Your task to perform on an android device: Open CNN.com Image 0: 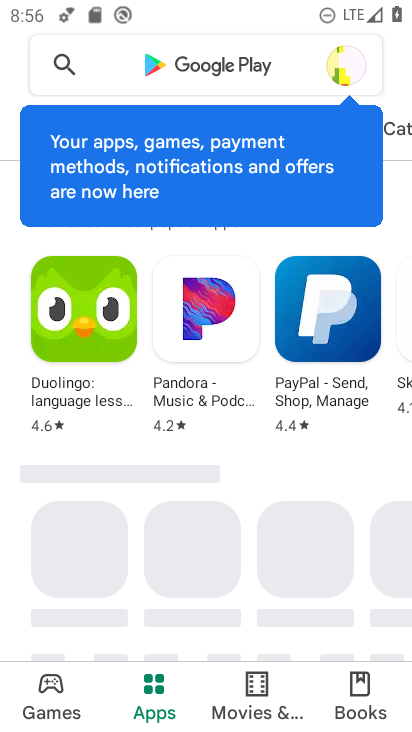
Step 0: press home button
Your task to perform on an android device: Open CNN.com Image 1: 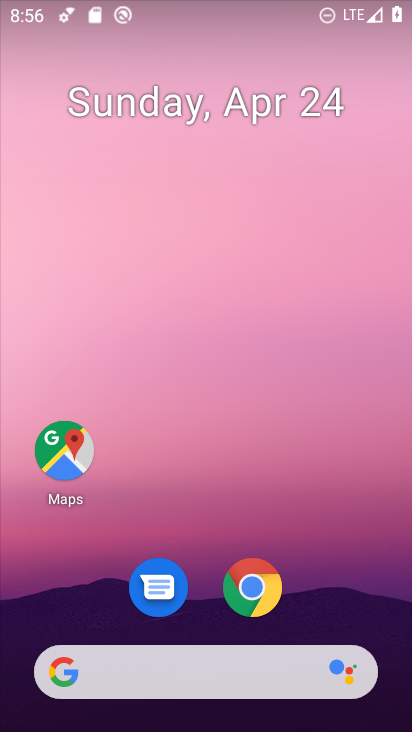
Step 1: drag from (315, 512) to (324, 159)
Your task to perform on an android device: Open CNN.com Image 2: 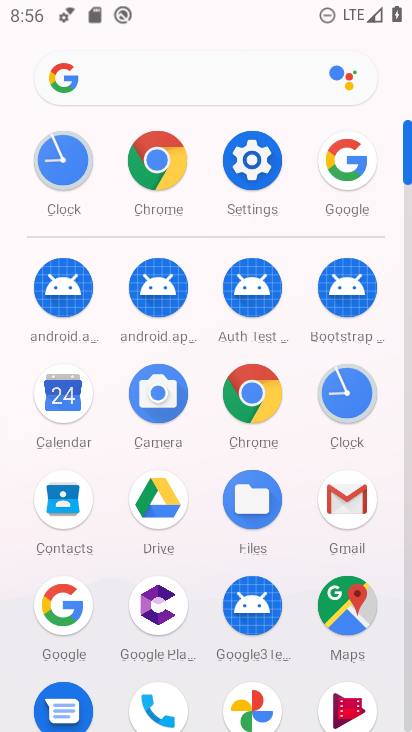
Step 2: click (258, 402)
Your task to perform on an android device: Open CNN.com Image 3: 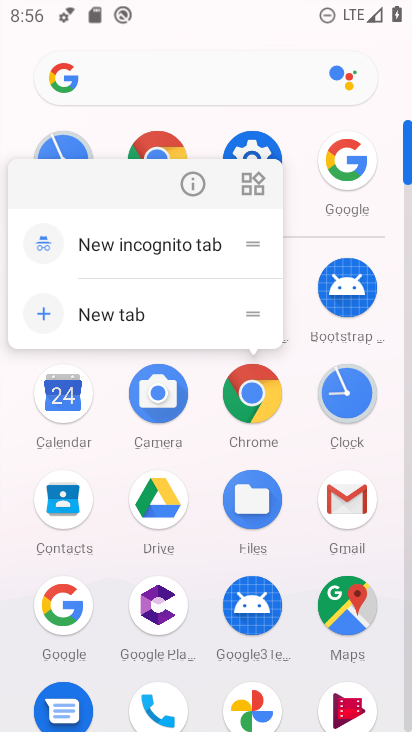
Step 3: click (250, 400)
Your task to perform on an android device: Open CNN.com Image 4: 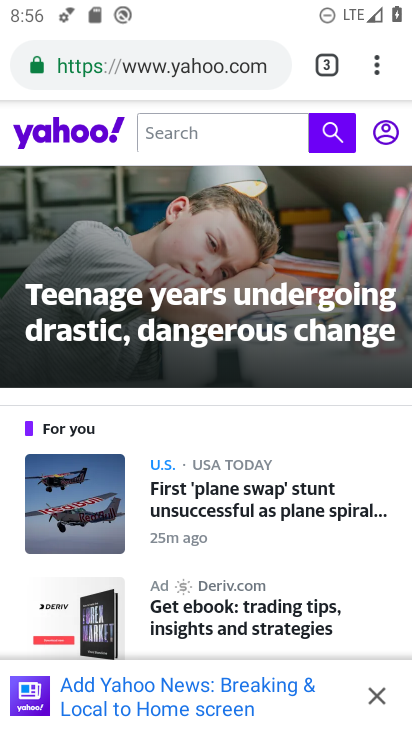
Step 4: click (188, 67)
Your task to perform on an android device: Open CNN.com Image 5: 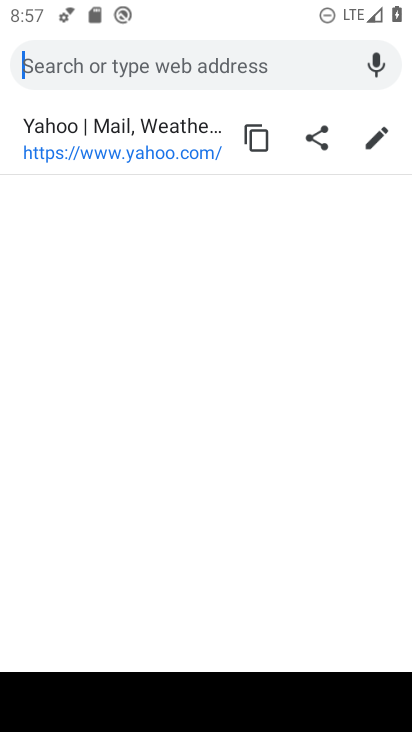
Step 5: type "cnn.com"
Your task to perform on an android device: Open CNN.com Image 6: 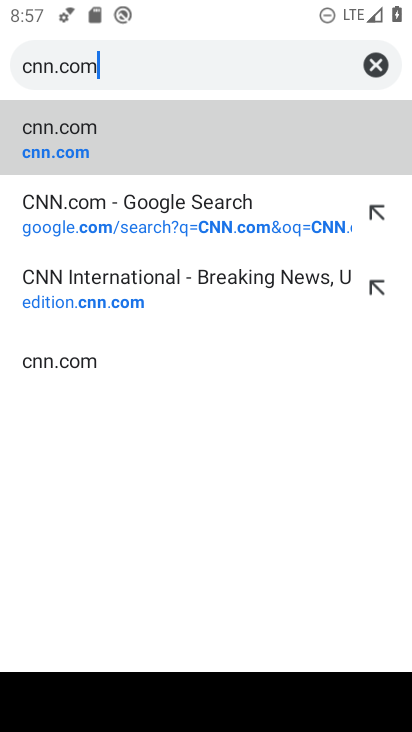
Step 6: click (80, 133)
Your task to perform on an android device: Open CNN.com Image 7: 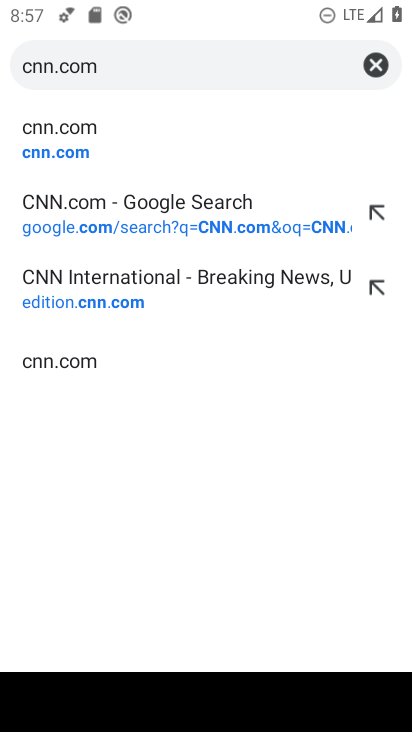
Step 7: click (65, 155)
Your task to perform on an android device: Open CNN.com Image 8: 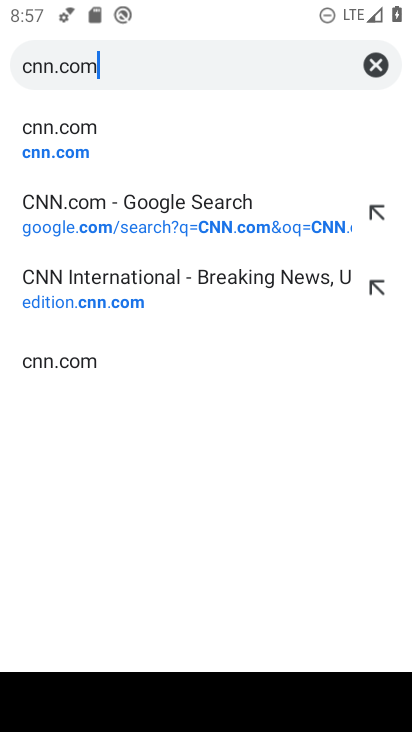
Step 8: click (65, 155)
Your task to perform on an android device: Open CNN.com Image 9: 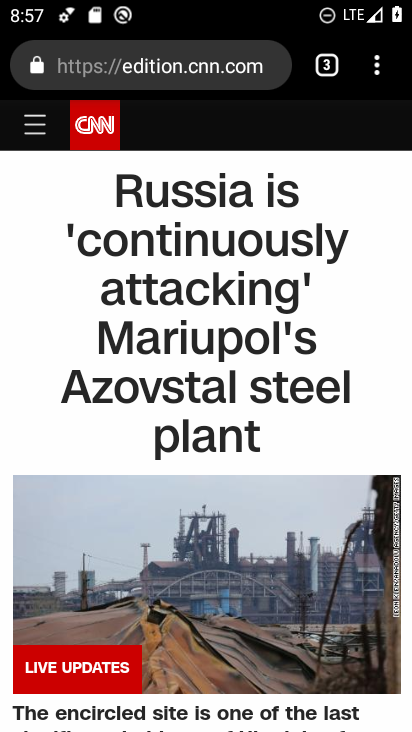
Step 9: task complete